Your task to perform on an android device: Go to Yahoo.com Image 0: 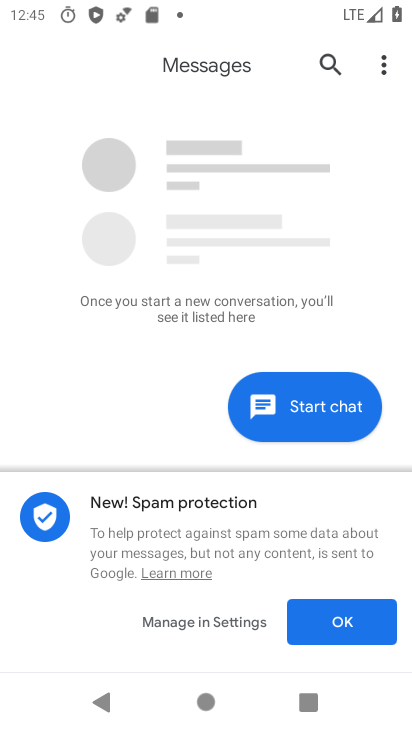
Step 0: press home button
Your task to perform on an android device: Go to Yahoo.com Image 1: 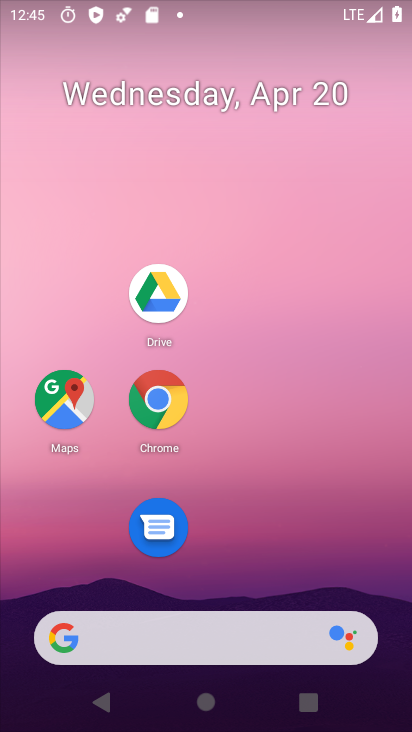
Step 1: drag from (273, 669) to (142, 329)
Your task to perform on an android device: Go to Yahoo.com Image 2: 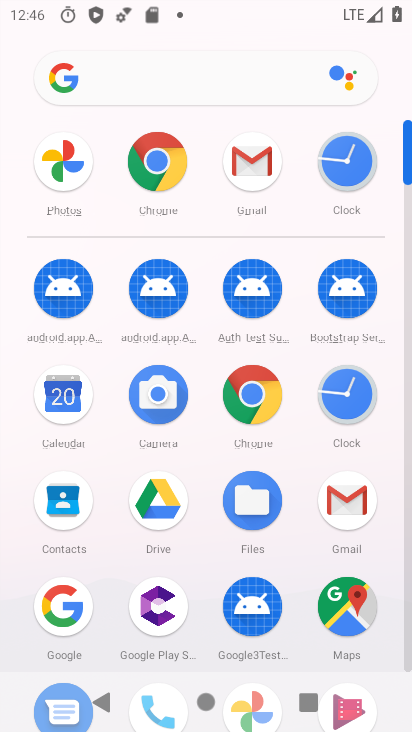
Step 2: click (240, 394)
Your task to perform on an android device: Go to Yahoo.com Image 3: 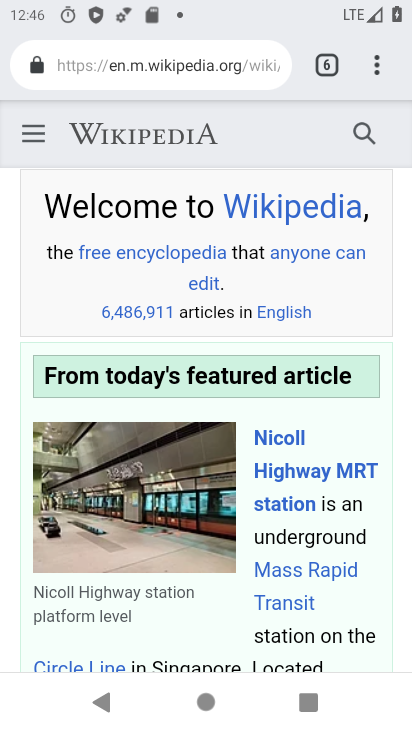
Step 3: click (185, 66)
Your task to perform on an android device: Go to Yahoo.com Image 4: 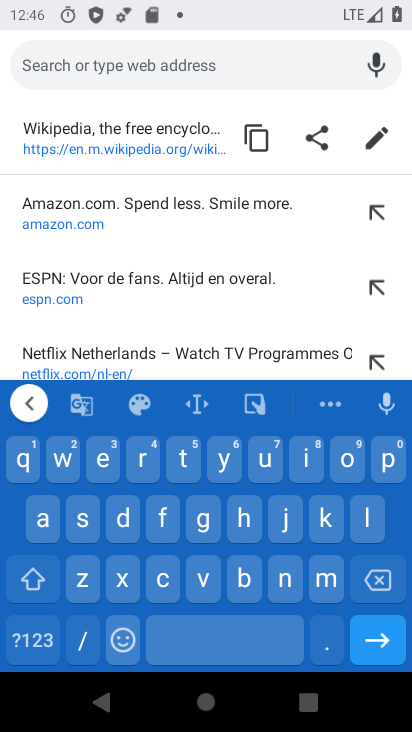
Step 4: click (221, 475)
Your task to perform on an android device: Go to Yahoo.com Image 5: 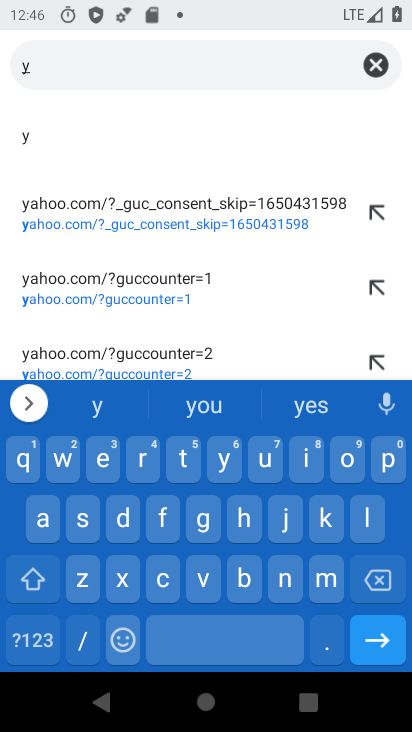
Step 5: click (44, 525)
Your task to perform on an android device: Go to Yahoo.com Image 6: 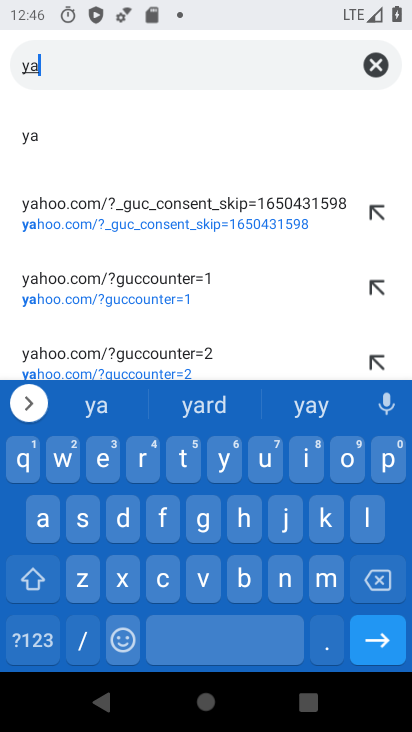
Step 6: click (240, 523)
Your task to perform on an android device: Go to Yahoo.com Image 7: 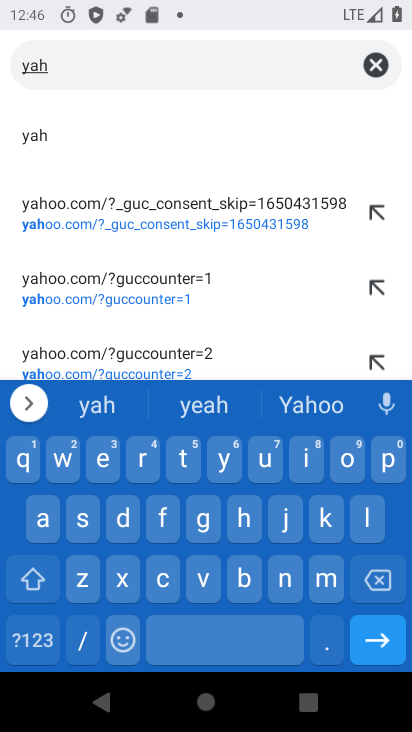
Step 7: click (343, 469)
Your task to perform on an android device: Go to Yahoo.com Image 8: 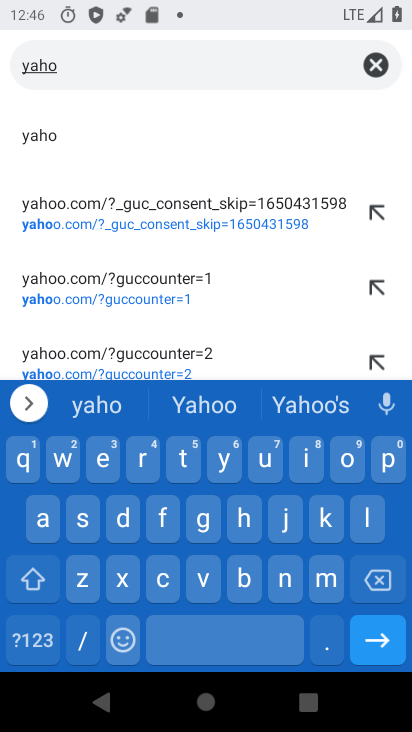
Step 8: click (345, 467)
Your task to perform on an android device: Go to Yahoo.com Image 9: 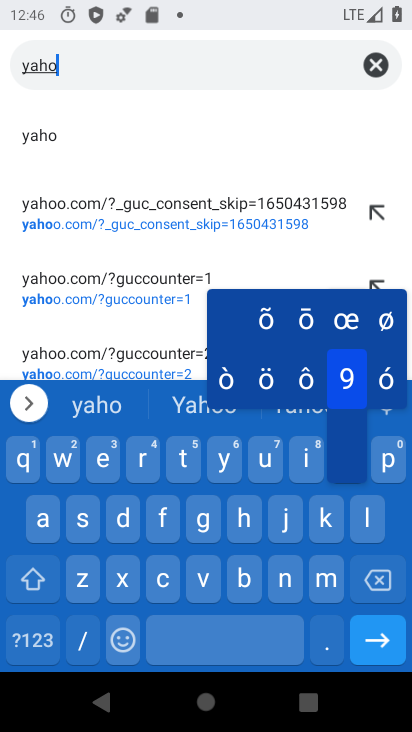
Step 9: click (346, 464)
Your task to perform on an android device: Go to Yahoo.com Image 10: 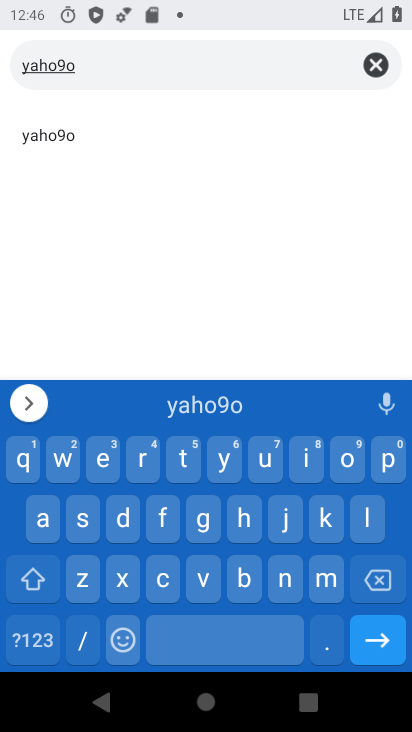
Step 10: click (378, 583)
Your task to perform on an android device: Go to Yahoo.com Image 11: 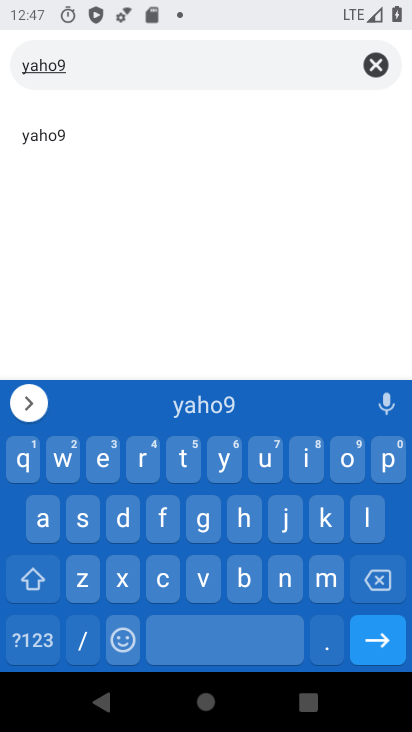
Step 11: click (384, 562)
Your task to perform on an android device: Go to Yahoo.com Image 12: 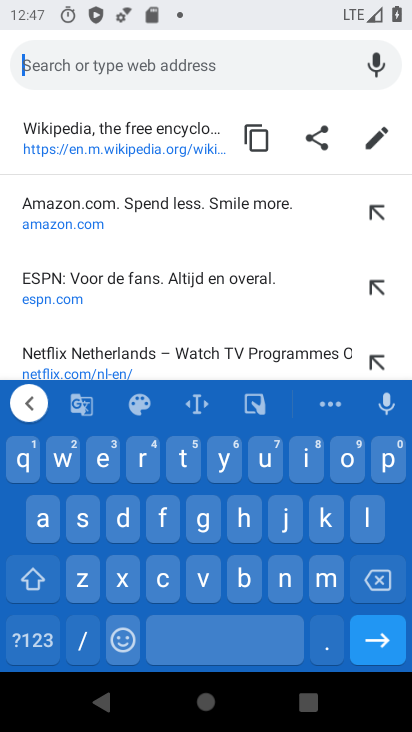
Step 12: click (222, 459)
Your task to perform on an android device: Go to Yahoo.com Image 13: 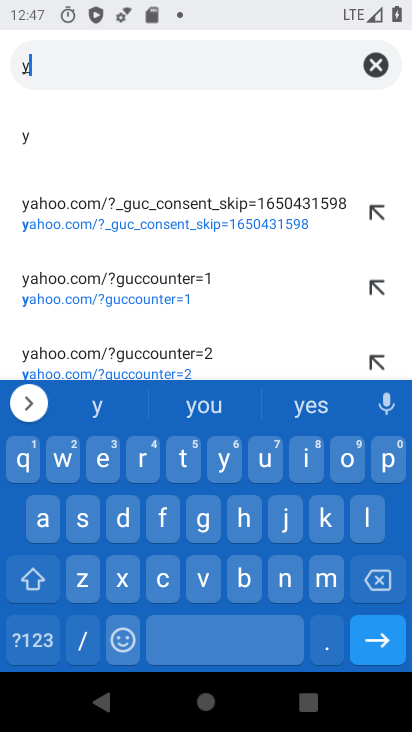
Step 13: click (103, 217)
Your task to perform on an android device: Go to Yahoo.com Image 14: 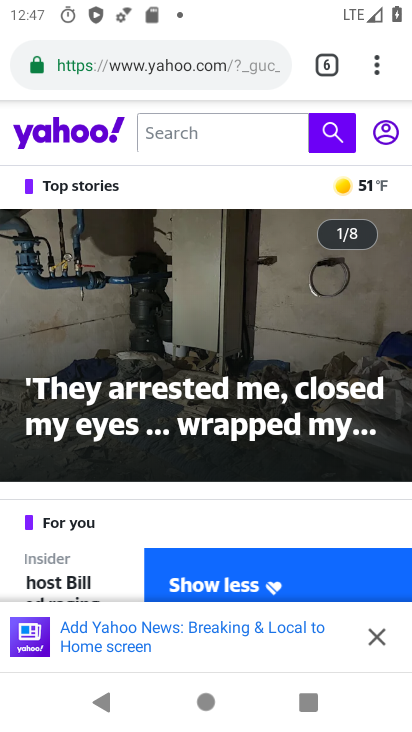
Step 14: task complete